Your task to perform on an android device: Open network settings Image 0: 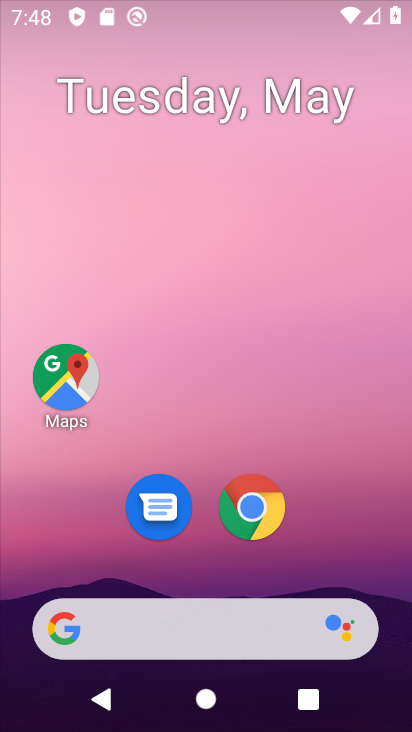
Step 0: drag from (375, 373) to (324, 0)
Your task to perform on an android device: Open network settings Image 1: 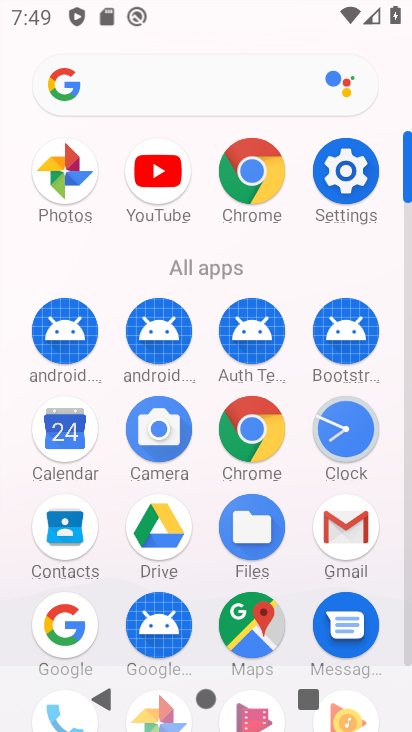
Step 1: drag from (15, 604) to (8, 269)
Your task to perform on an android device: Open network settings Image 2: 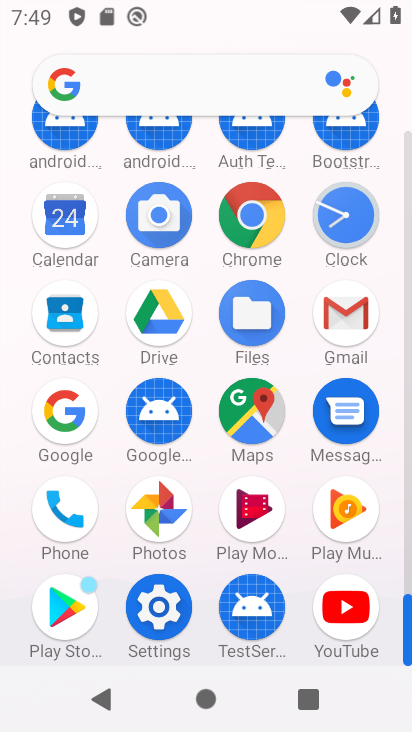
Step 2: click (156, 604)
Your task to perform on an android device: Open network settings Image 3: 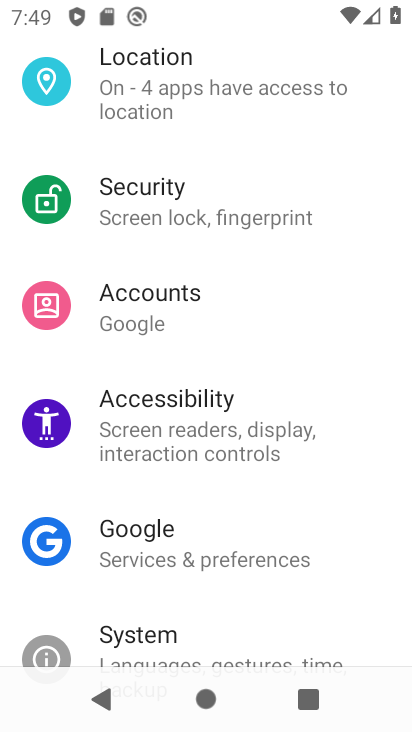
Step 3: drag from (310, 112) to (326, 455)
Your task to perform on an android device: Open network settings Image 4: 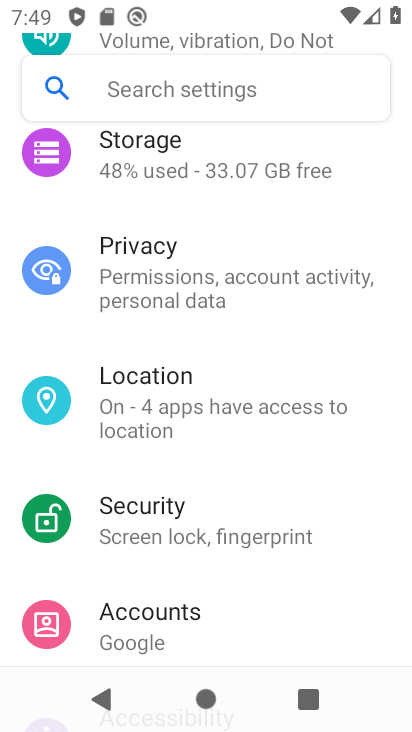
Step 4: drag from (290, 238) to (302, 596)
Your task to perform on an android device: Open network settings Image 5: 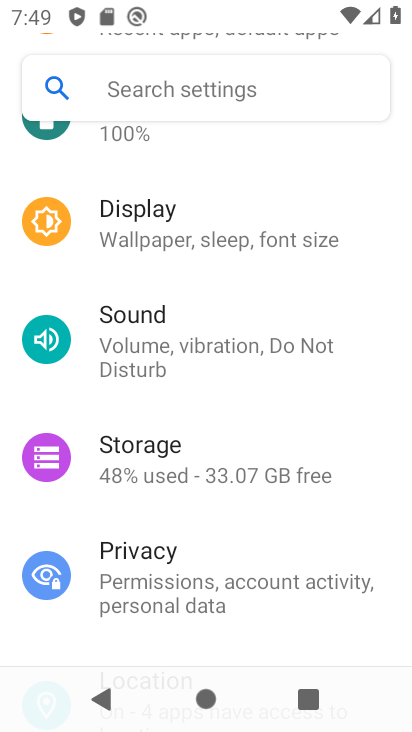
Step 5: drag from (279, 183) to (315, 563)
Your task to perform on an android device: Open network settings Image 6: 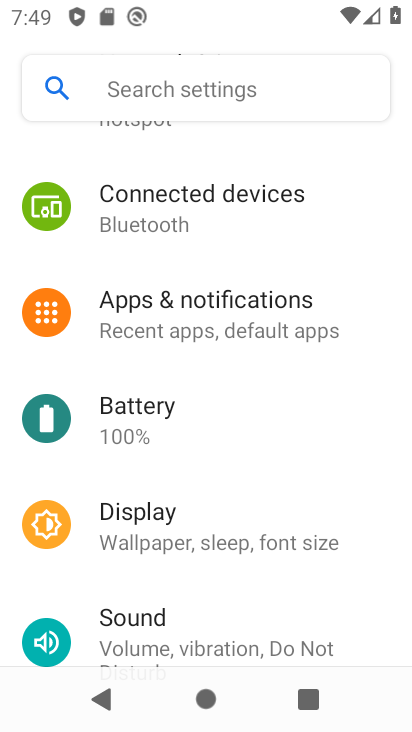
Step 6: drag from (280, 252) to (260, 575)
Your task to perform on an android device: Open network settings Image 7: 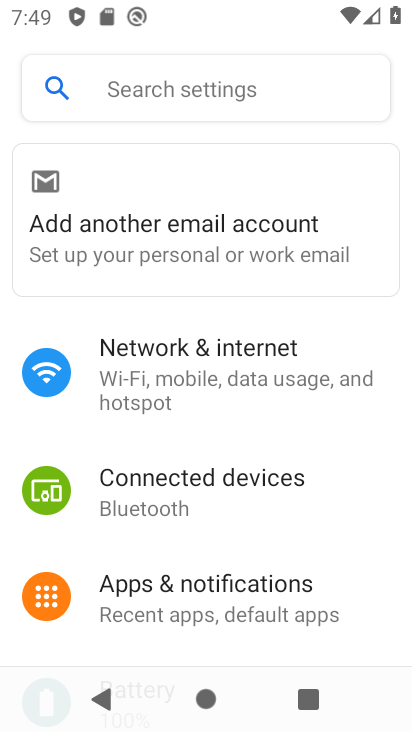
Step 7: click (244, 365)
Your task to perform on an android device: Open network settings Image 8: 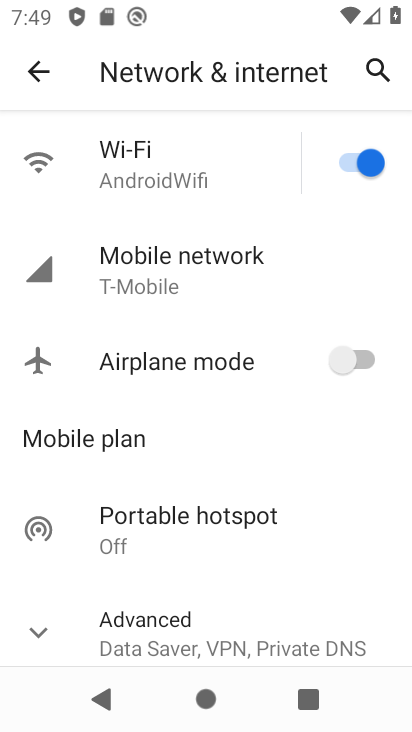
Step 8: task complete